Your task to perform on an android device: set an alarm Image 0: 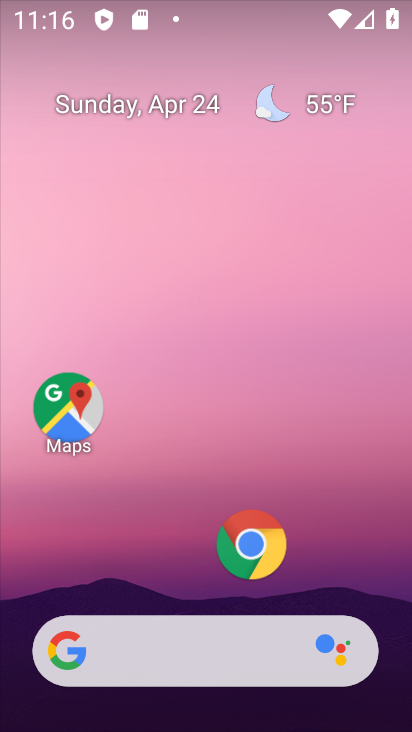
Step 0: drag from (173, 464) to (173, 237)
Your task to perform on an android device: set an alarm Image 1: 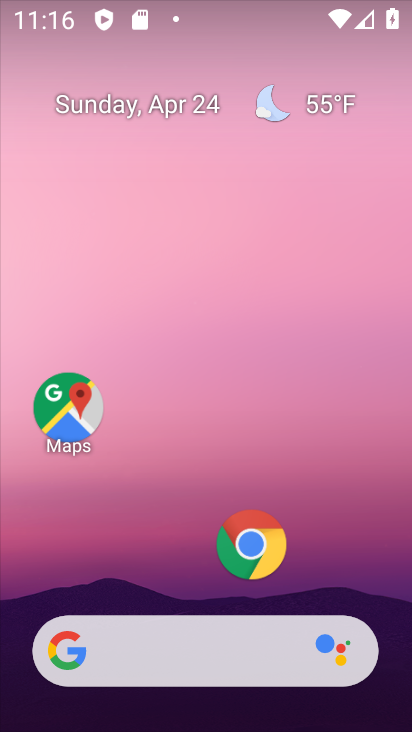
Step 1: click (164, 173)
Your task to perform on an android device: set an alarm Image 2: 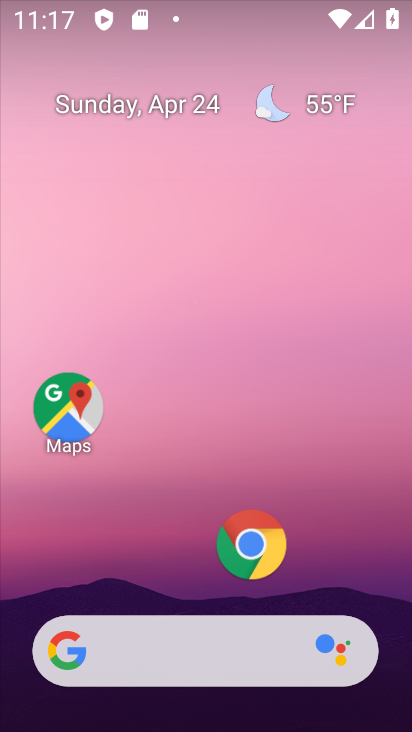
Step 2: drag from (190, 587) to (191, 186)
Your task to perform on an android device: set an alarm Image 3: 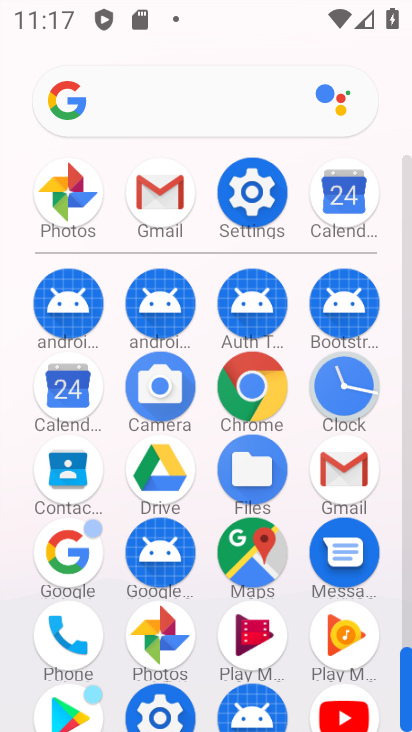
Step 3: click (320, 383)
Your task to perform on an android device: set an alarm Image 4: 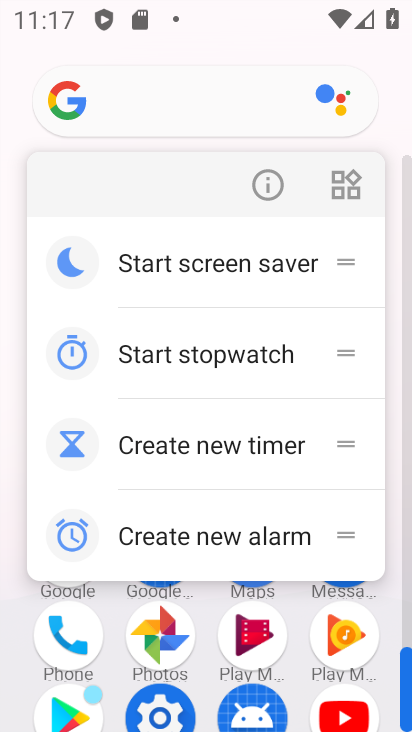
Step 4: click (222, 47)
Your task to perform on an android device: set an alarm Image 5: 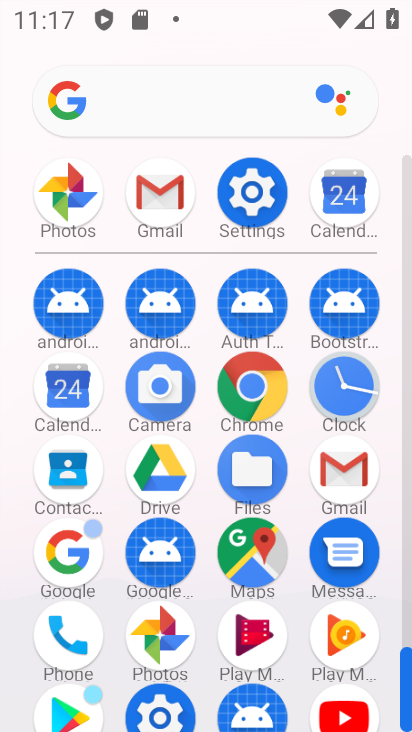
Step 5: click (338, 407)
Your task to perform on an android device: set an alarm Image 6: 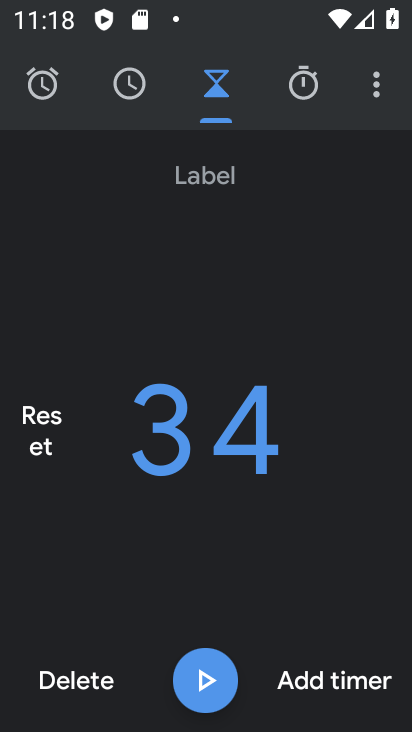
Step 6: click (64, 85)
Your task to perform on an android device: set an alarm Image 7: 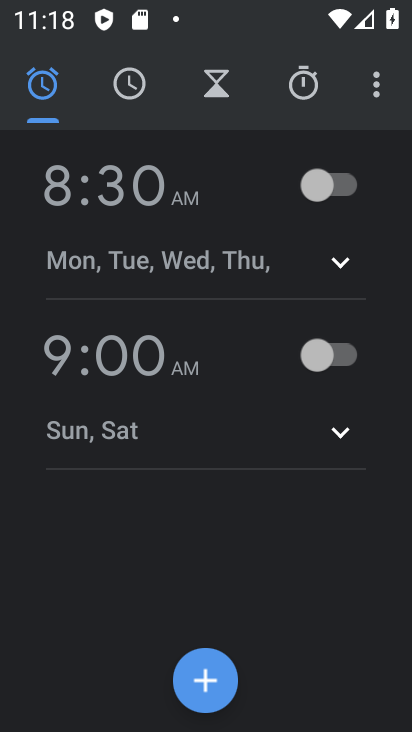
Step 7: click (347, 187)
Your task to perform on an android device: set an alarm Image 8: 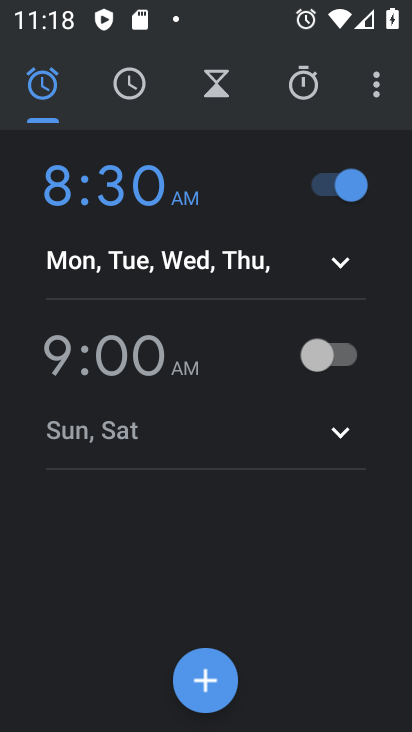
Step 8: task complete